Your task to perform on an android device: Go to Wikipedia Image 0: 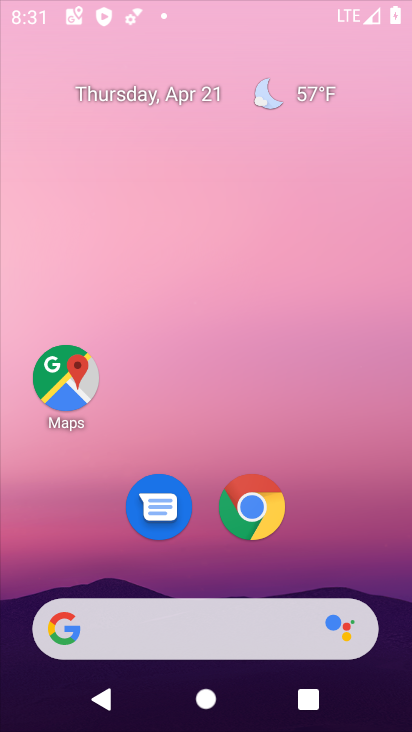
Step 0: drag from (329, 537) to (334, 258)
Your task to perform on an android device: Go to Wikipedia Image 1: 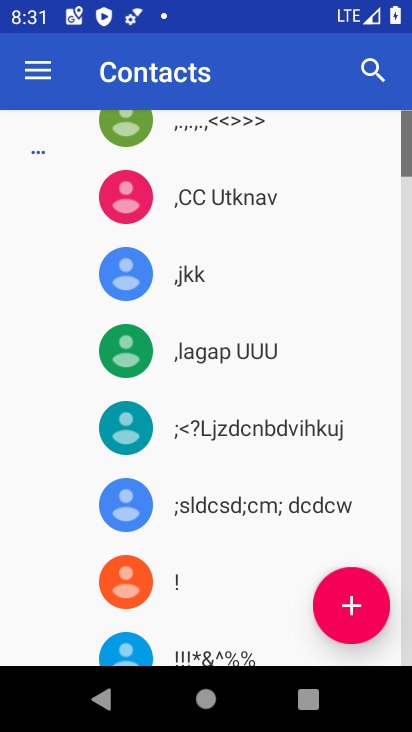
Step 1: press home button
Your task to perform on an android device: Go to Wikipedia Image 2: 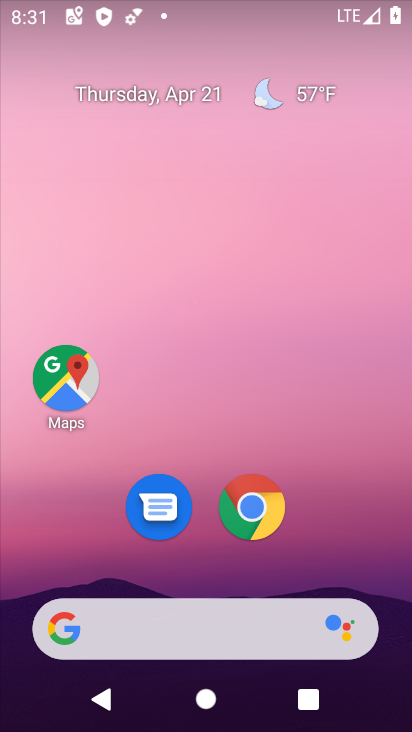
Step 2: click (263, 521)
Your task to perform on an android device: Go to Wikipedia Image 3: 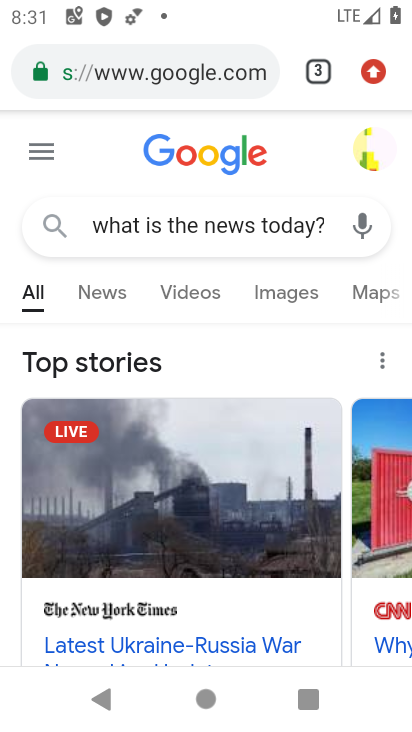
Step 3: drag from (374, 76) to (215, 234)
Your task to perform on an android device: Go to Wikipedia Image 4: 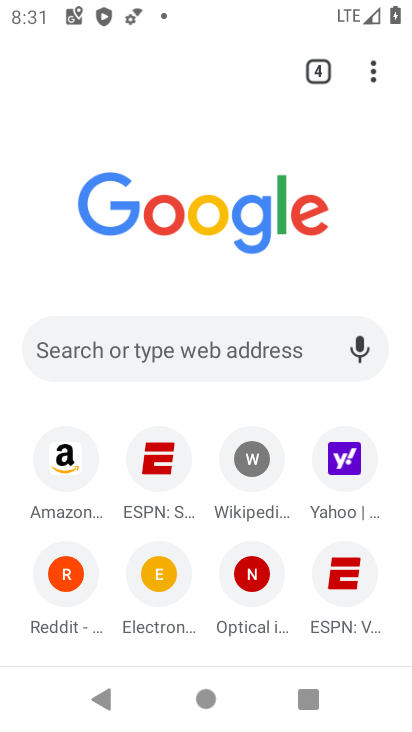
Step 4: click (258, 465)
Your task to perform on an android device: Go to Wikipedia Image 5: 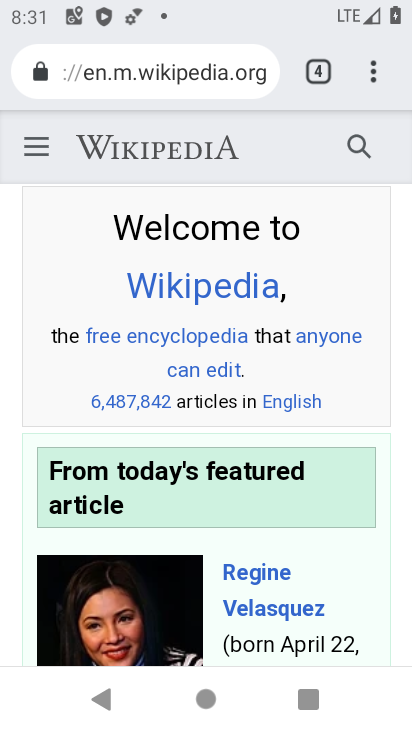
Step 5: task complete